Your task to perform on an android device: install app "Upside-Cash back on gas & food" Image 0: 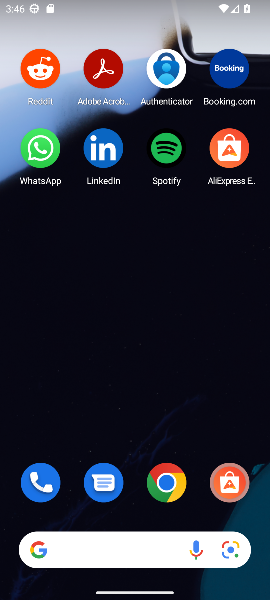
Step 0: press home button
Your task to perform on an android device: install app "Upside-Cash back on gas & food" Image 1: 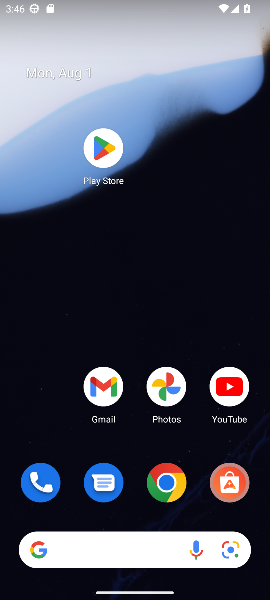
Step 1: click (100, 152)
Your task to perform on an android device: install app "Upside-Cash back on gas & food" Image 2: 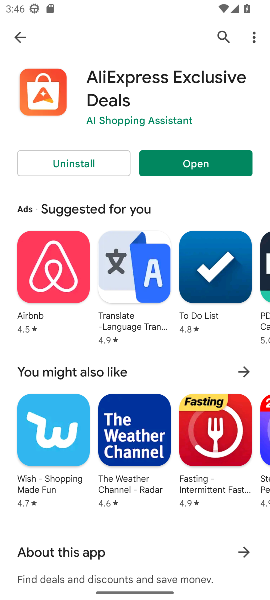
Step 2: click (222, 36)
Your task to perform on an android device: install app "Upside-Cash back on gas & food" Image 3: 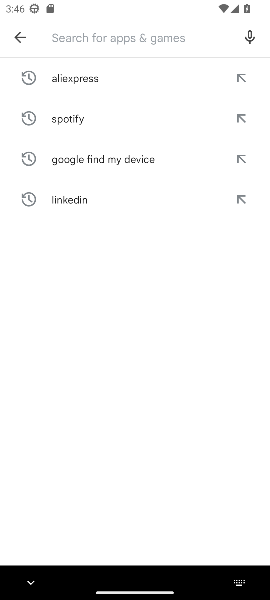
Step 3: type "Upside-Cash back on gas & food"
Your task to perform on an android device: install app "Upside-Cash back on gas & food" Image 4: 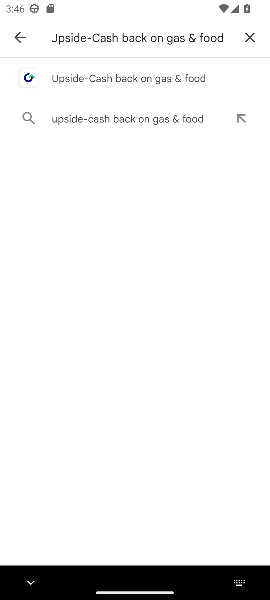
Step 4: click (139, 79)
Your task to perform on an android device: install app "Upside-Cash back on gas & food" Image 5: 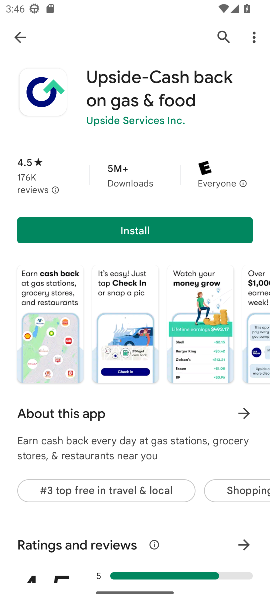
Step 5: click (134, 229)
Your task to perform on an android device: install app "Upside-Cash back on gas & food" Image 6: 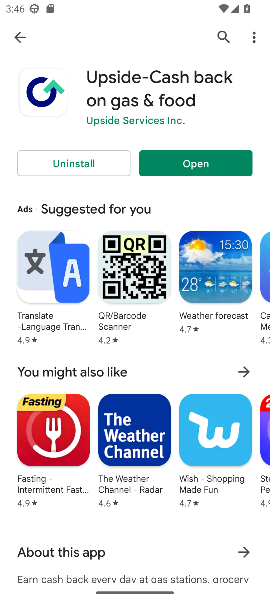
Step 6: task complete